Your task to perform on an android device: clear all cookies in the chrome app Image 0: 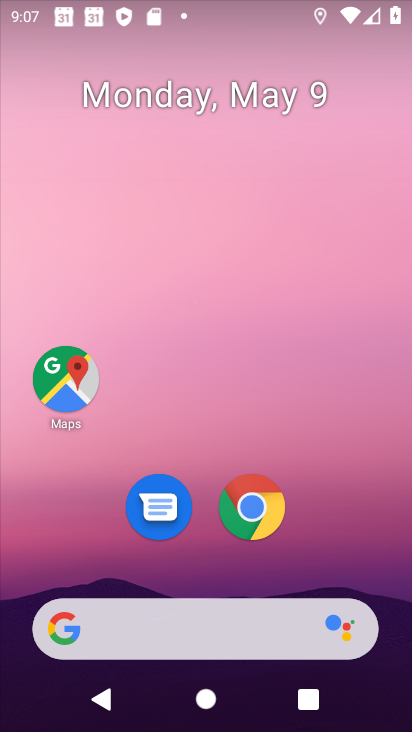
Step 0: click (250, 526)
Your task to perform on an android device: clear all cookies in the chrome app Image 1: 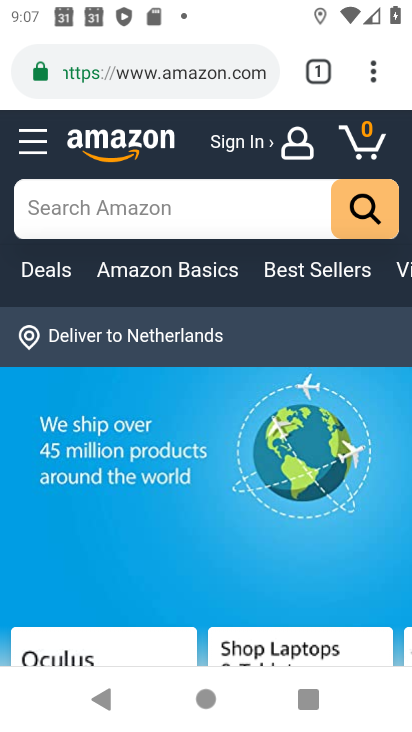
Step 1: drag from (387, 87) to (178, 507)
Your task to perform on an android device: clear all cookies in the chrome app Image 2: 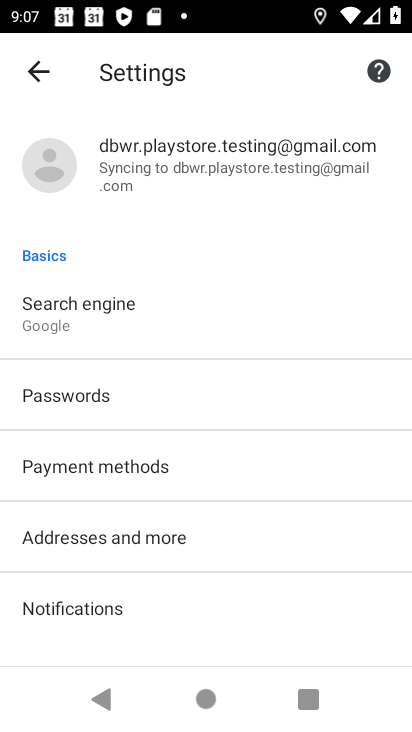
Step 2: drag from (144, 631) to (272, 106)
Your task to perform on an android device: clear all cookies in the chrome app Image 3: 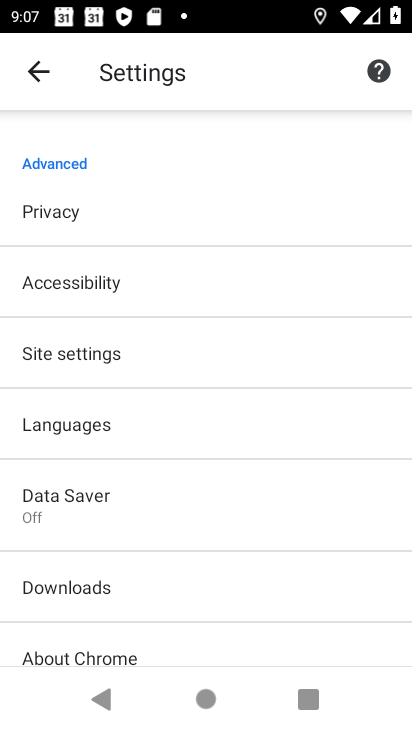
Step 3: drag from (120, 599) to (159, 549)
Your task to perform on an android device: clear all cookies in the chrome app Image 4: 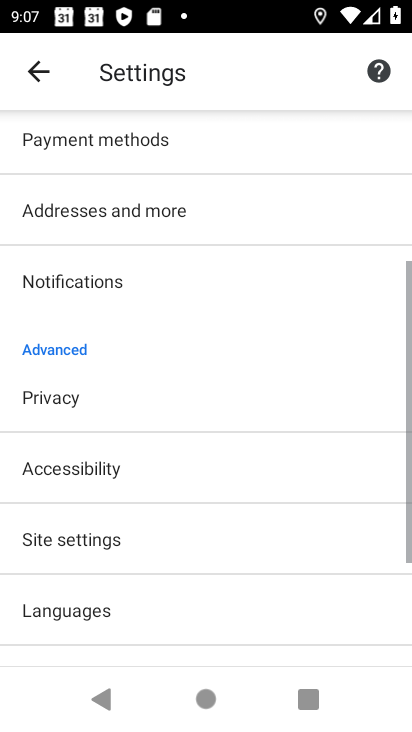
Step 4: click (97, 403)
Your task to perform on an android device: clear all cookies in the chrome app Image 5: 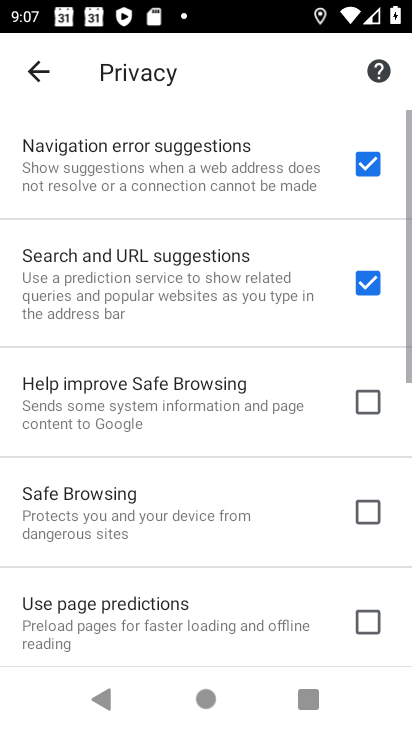
Step 5: drag from (153, 621) to (247, 131)
Your task to perform on an android device: clear all cookies in the chrome app Image 6: 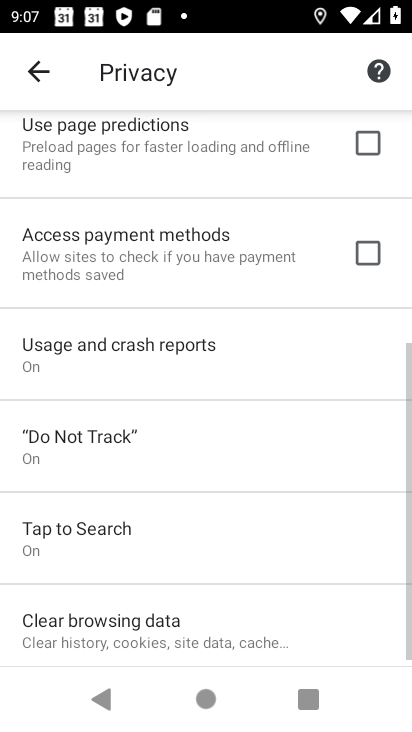
Step 6: drag from (144, 619) to (193, 291)
Your task to perform on an android device: clear all cookies in the chrome app Image 7: 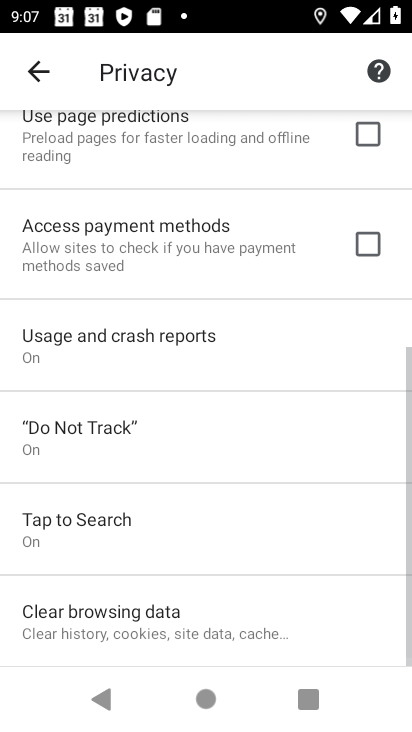
Step 7: click (155, 634)
Your task to perform on an android device: clear all cookies in the chrome app Image 8: 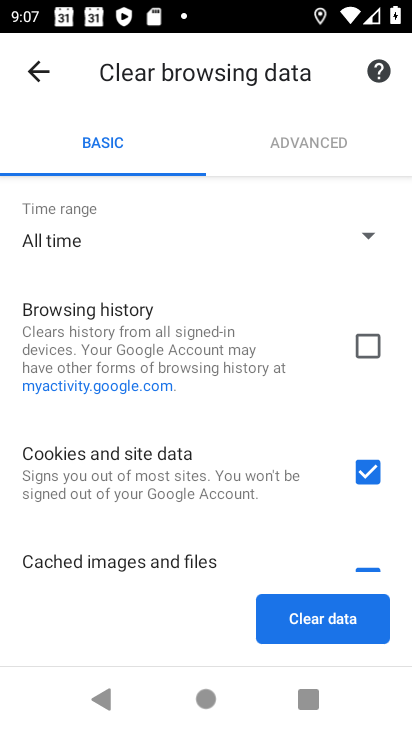
Step 8: drag from (200, 536) to (283, 317)
Your task to perform on an android device: clear all cookies in the chrome app Image 9: 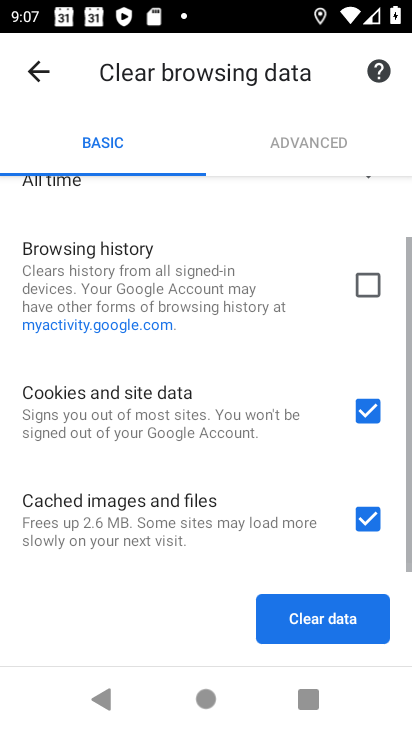
Step 9: click (369, 530)
Your task to perform on an android device: clear all cookies in the chrome app Image 10: 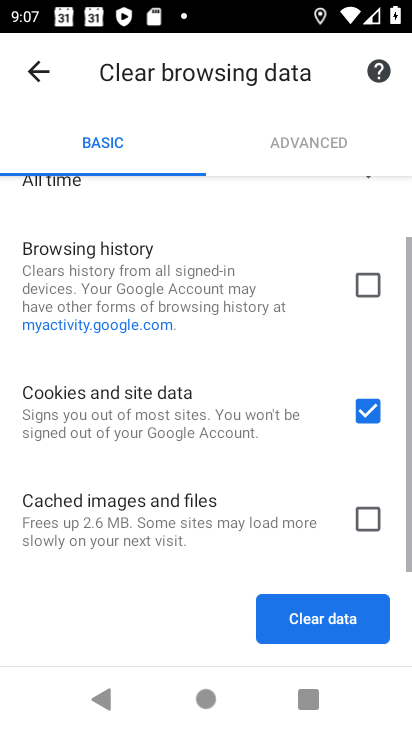
Step 10: click (323, 648)
Your task to perform on an android device: clear all cookies in the chrome app Image 11: 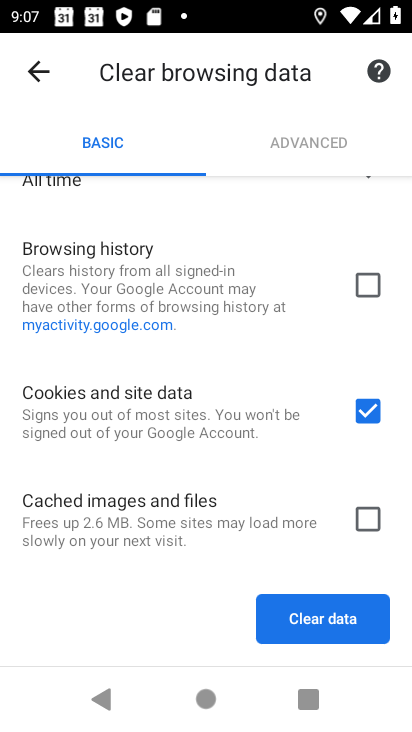
Step 11: click (325, 619)
Your task to perform on an android device: clear all cookies in the chrome app Image 12: 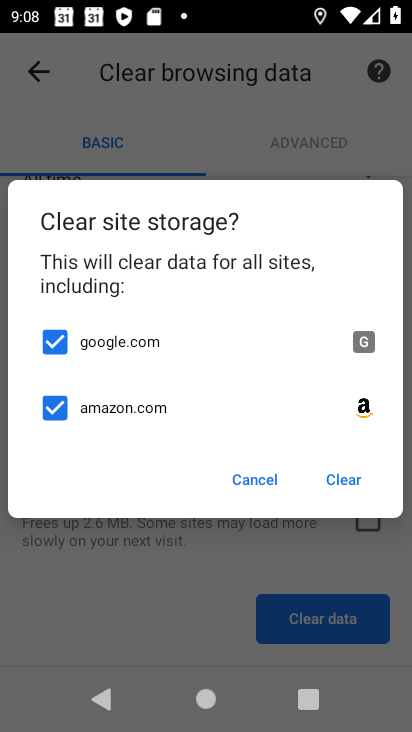
Step 12: click (382, 477)
Your task to perform on an android device: clear all cookies in the chrome app Image 13: 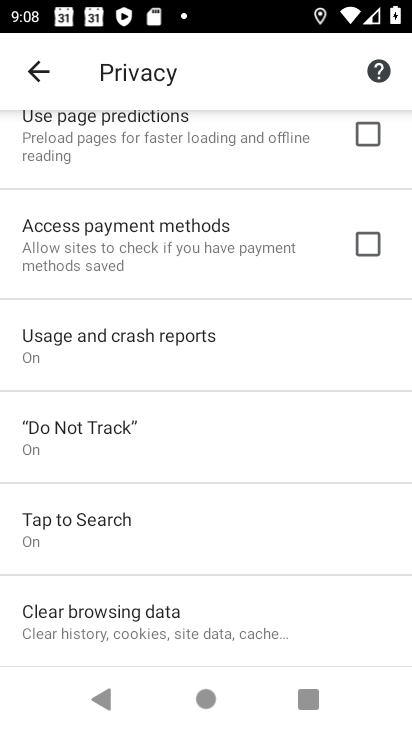
Step 13: task complete